Your task to perform on an android device: Open privacy settings Image 0: 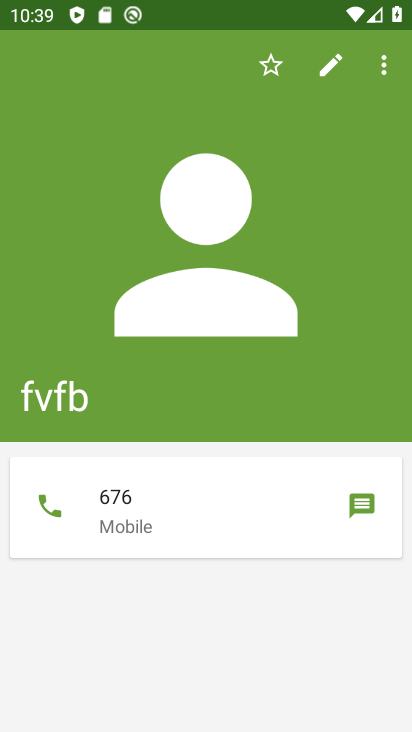
Step 0: press back button
Your task to perform on an android device: Open privacy settings Image 1: 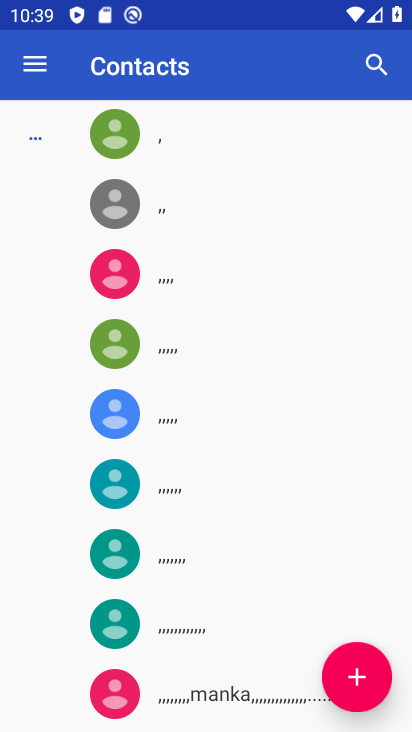
Step 1: press back button
Your task to perform on an android device: Open privacy settings Image 2: 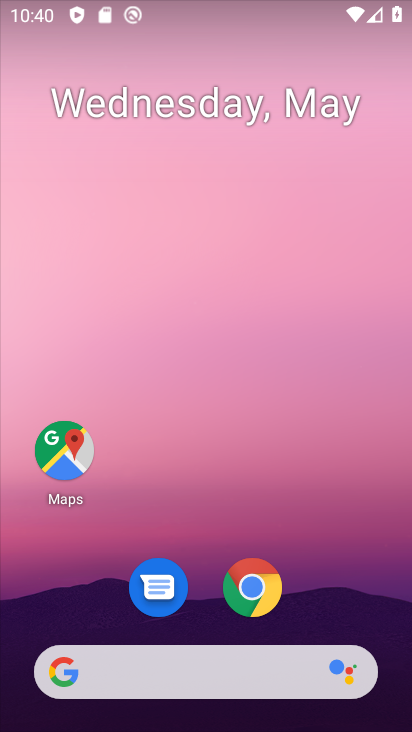
Step 2: click (265, 581)
Your task to perform on an android device: Open privacy settings Image 3: 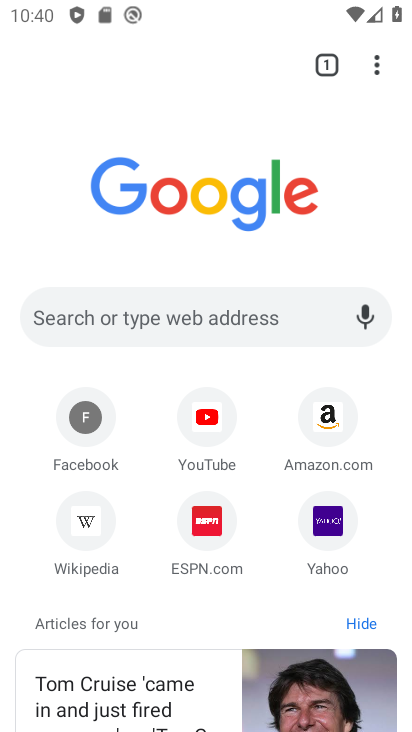
Step 3: drag from (381, 67) to (404, 444)
Your task to perform on an android device: Open privacy settings Image 4: 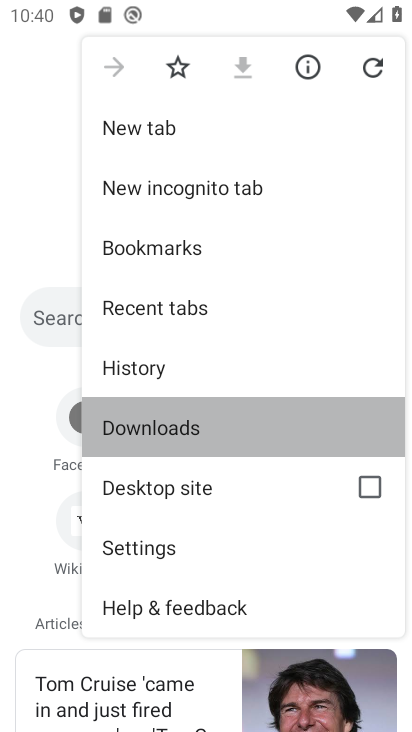
Step 4: press back button
Your task to perform on an android device: Open privacy settings Image 5: 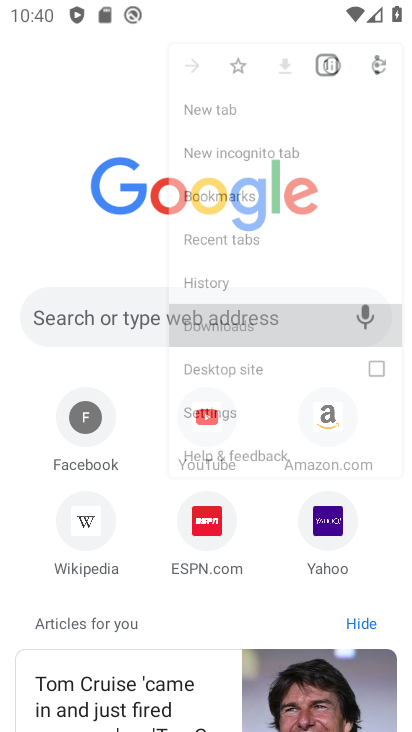
Step 5: click (404, 444)
Your task to perform on an android device: Open privacy settings Image 6: 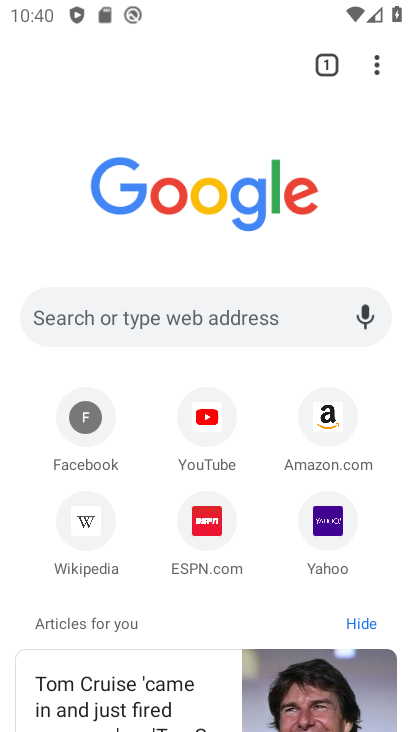
Step 6: press back button
Your task to perform on an android device: Open privacy settings Image 7: 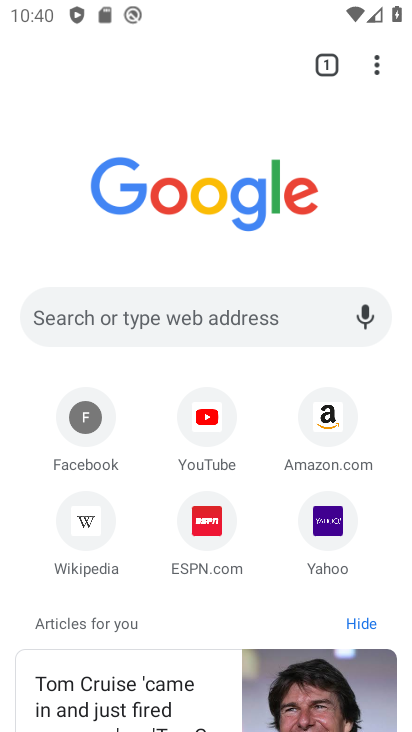
Step 7: drag from (404, 444) to (395, 531)
Your task to perform on an android device: Open privacy settings Image 8: 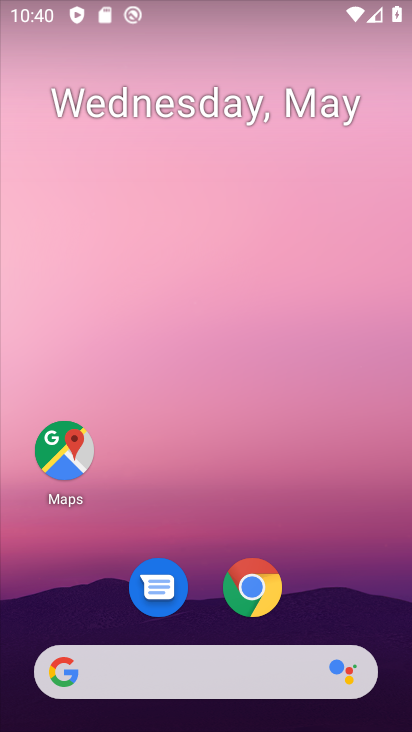
Step 8: drag from (204, 596) to (331, 65)
Your task to perform on an android device: Open privacy settings Image 9: 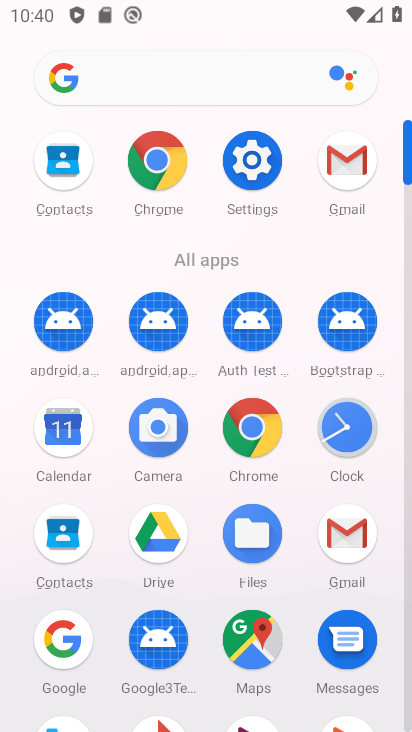
Step 9: click (249, 160)
Your task to perform on an android device: Open privacy settings Image 10: 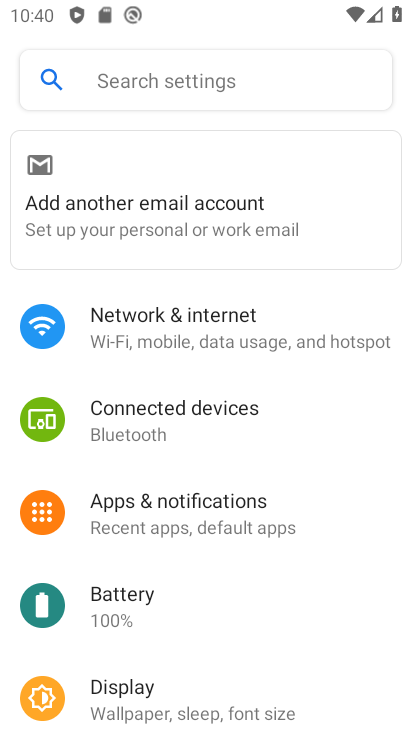
Step 10: drag from (153, 653) to (296, 148)
Your task to perform on an android device: Open privacy settings Image 11: 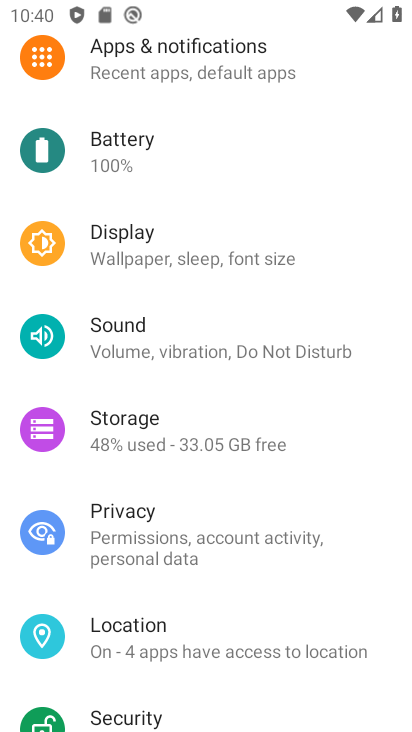
Step 11: click (149, 529)
Your task to perform on an android device: Open privacy settings Image 12: 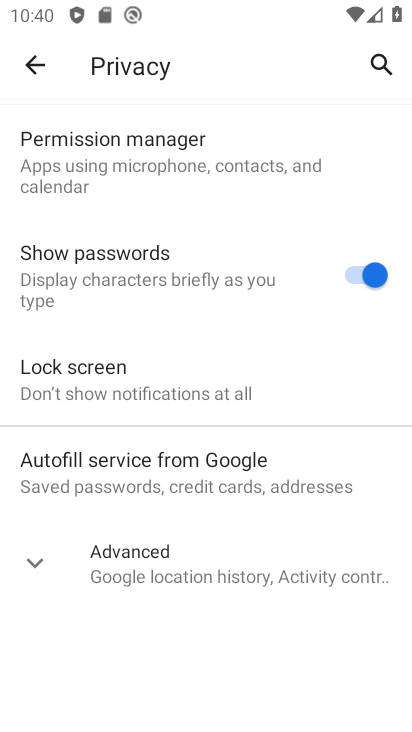
Step 12: task complete